Your task to perform on an android device: Go to CNN.com Image 0: 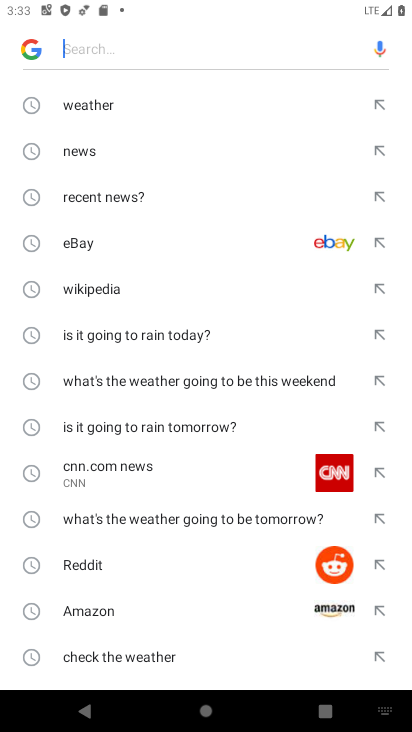
Step 0: click (100, 471)
Your task to perform on an android device: Go to CNN.com Image 1: 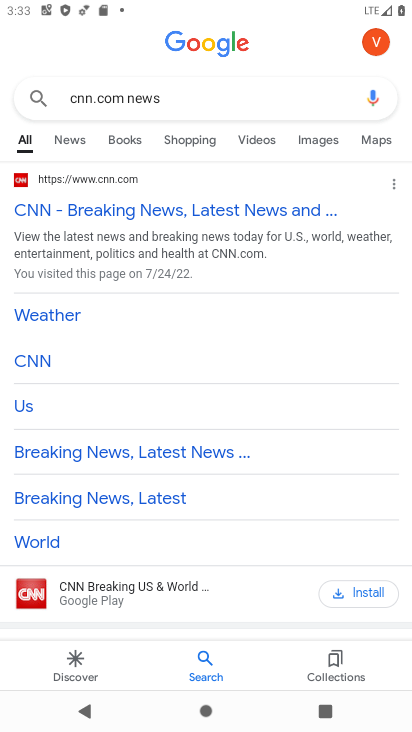
Step 1: click (52, 208)
Your task to perform on an android device: Go to CNN.com Image 2: 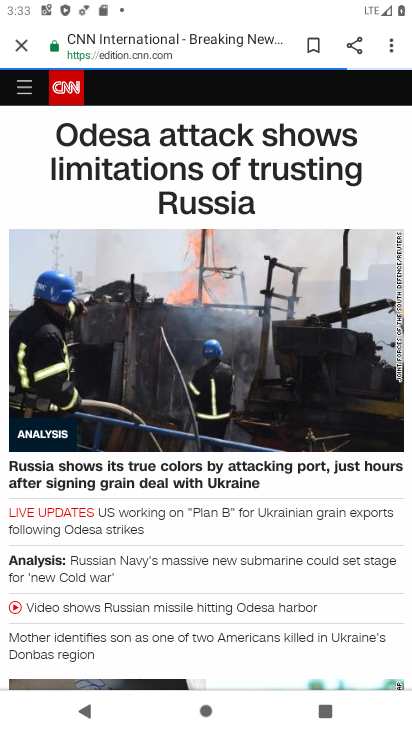
Step 2: task complete